Your task to perform on an android device: remove spam from my inbox in the gmail app Image 0: 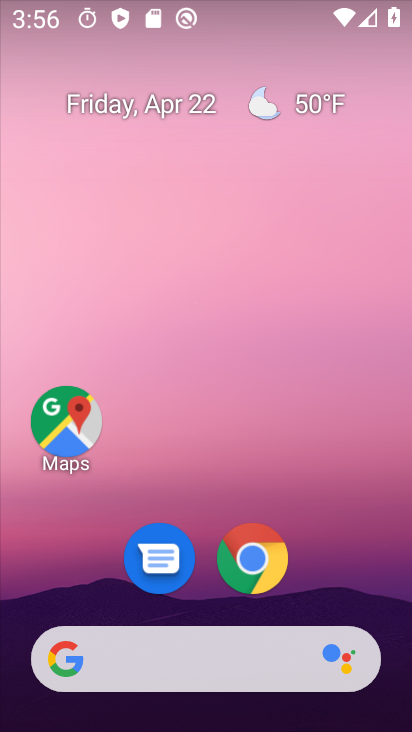
Step 0: drag from (324, 606) to (324, 146)
Your task to perform on an android device: remove spam from my inbox in the gmail app Image 1: 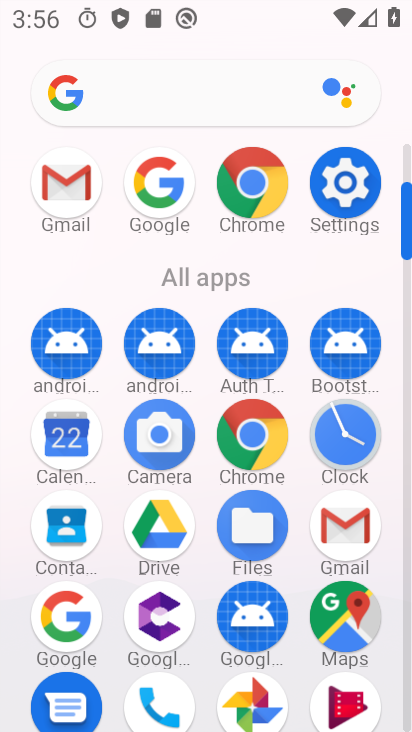
Step 1: click (79, 189)
Your task to perform on an android device: remove spam from my inbox in the gmail app Image 2: 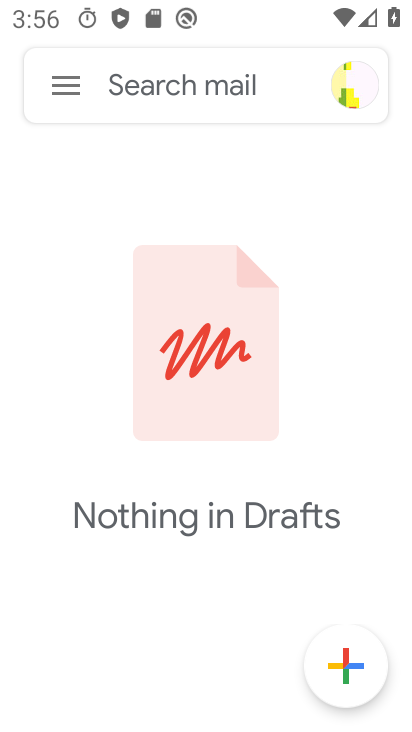
Step 2: click (65, 85)
Your task to perform on an android device: remove spam from my inbox in the gmail app Image 3: 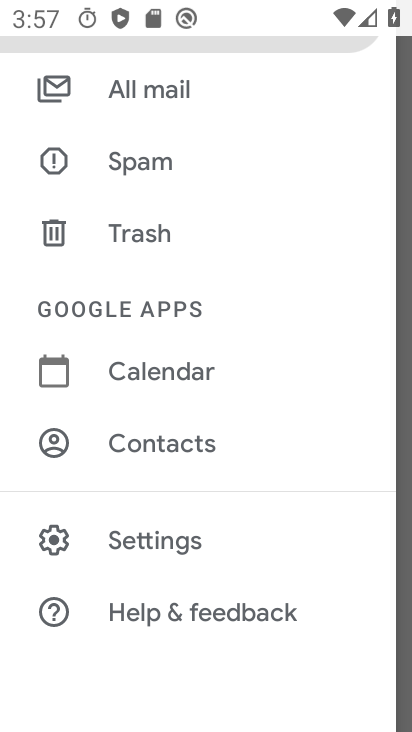
Step 3: click (153, 161)
Your task to perform on an android device: remove spam from my inbox in the gmail app Image 4: 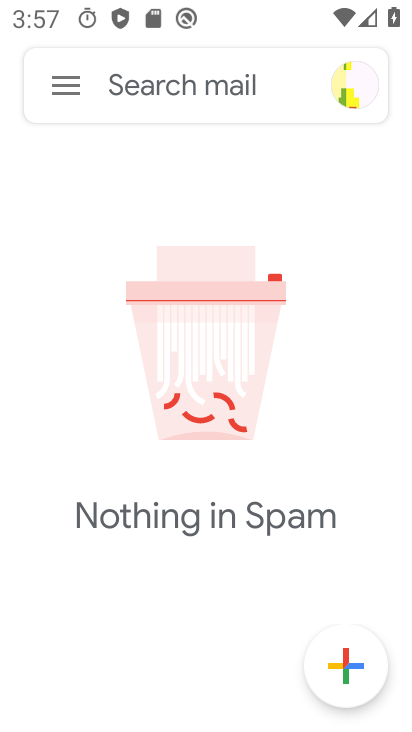
Step 4: task complete